Your task to perform on an android device: Open Amazon Image 0: 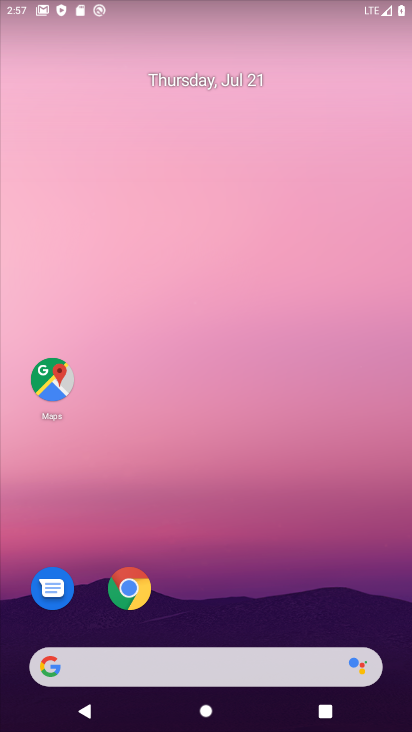
Step 0: click (120, 593)
Your task to perform on an android device: Open Amazon Image 1: 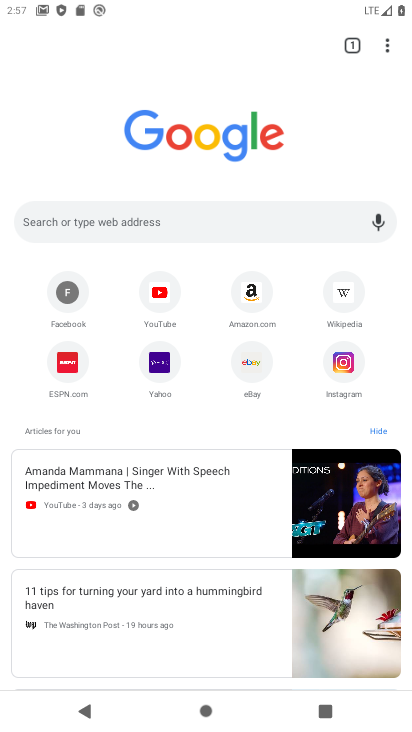
Step 1: click (252, 297)
Your task to perform on an android device: Open Amazon Image 2: 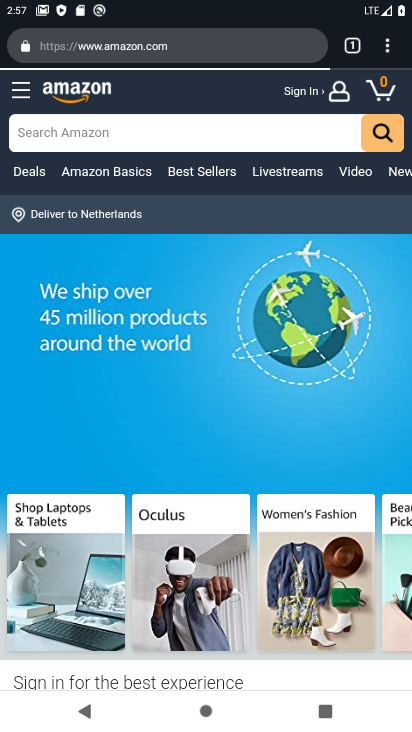
Step 2: task complete